Your task to perform on an android device: turn on airplane mode Image 0: 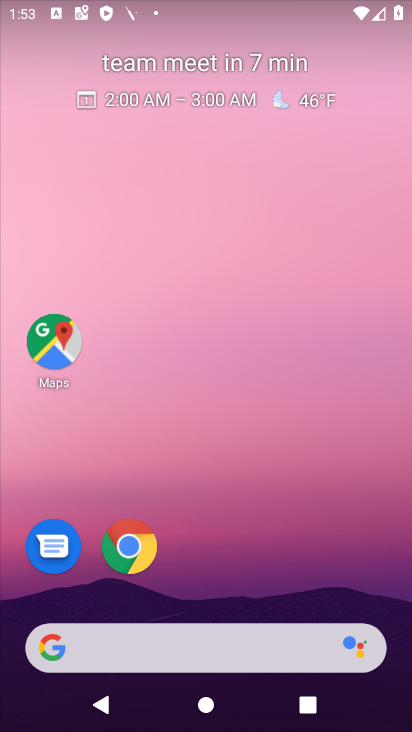
Step 0: drag from (395, 619) to (295, 119)
Your task to perform on an android device: turn on airplane mode Image 1: 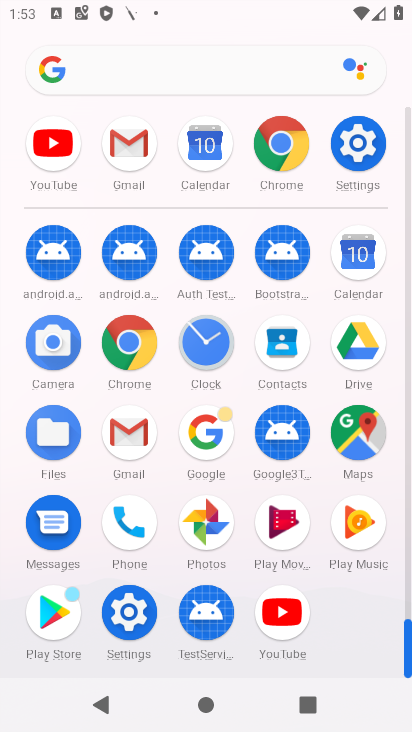
Step 1: click (131, 613)
Your task to perform on an android device: turn on airplane mode Image 2: 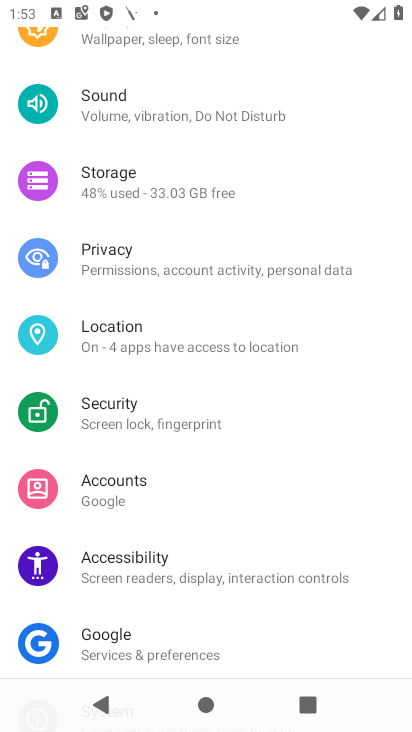
Step 2: drag from (355, 112) to (369, 421)
Your task to perform on an android device: turn on airplane mode Image 3: 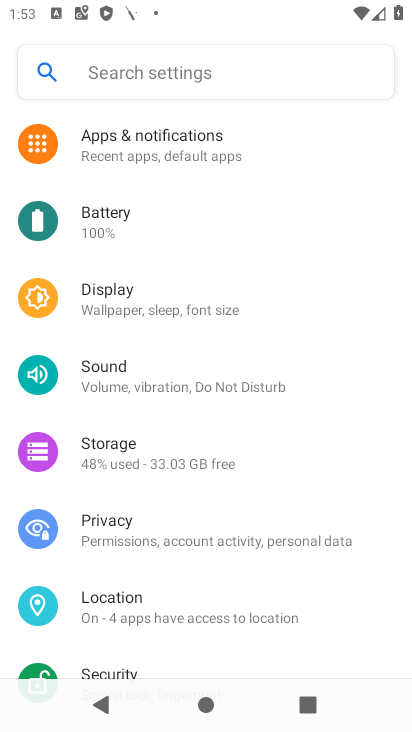
Step 3: drag from (327, 189) to (315, 488)
Your task to perform on an android device: turn on airplane mode Image 4: 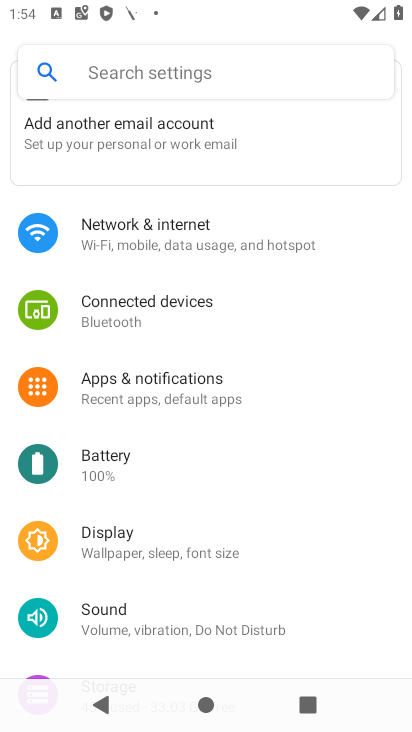
Step 4: click (136, 230)
Your task to perform on an android device: turn on airplane mode Image 5: 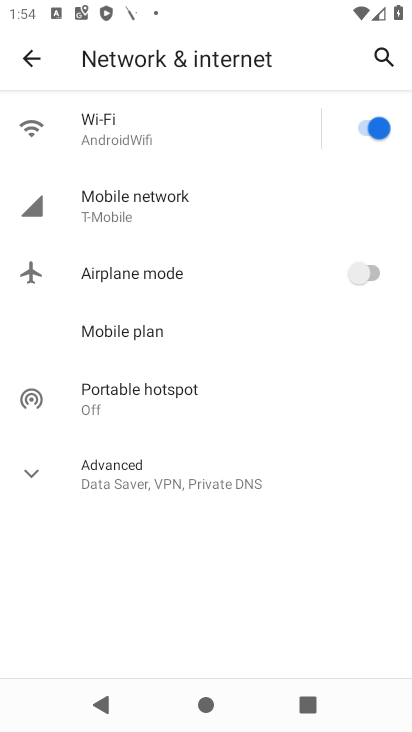
Step 5: click (374, 271)
Your task to perform on an android device: turn on airplane mode Image 6: 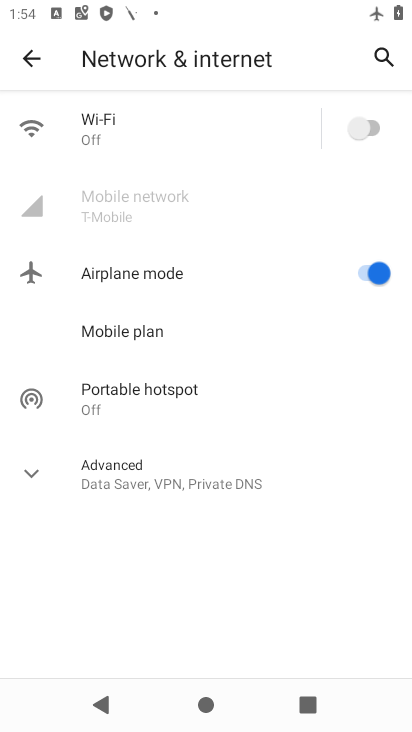
Step 6: task complete